Your task to perform on an android device: Open Google Maps Image 0: 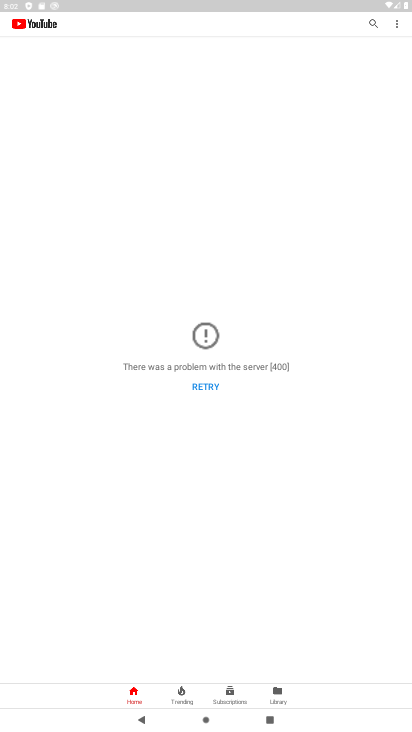
Step 0: press home button
Your task to perform on an android device: Open Google Maps Image 1: 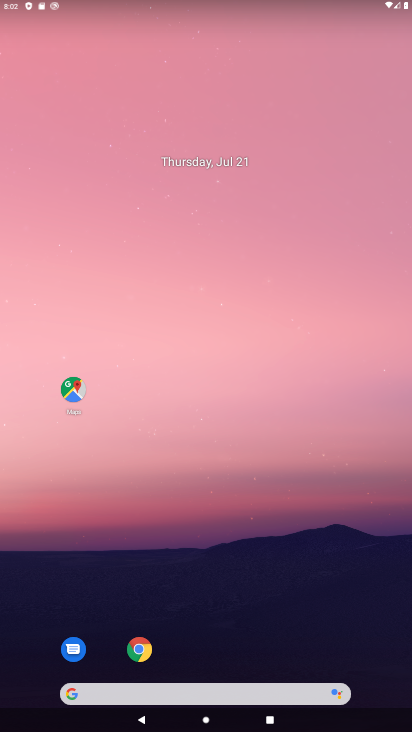
Step 1: drag from (280, 631) to (279, 404)
Your task to perform on an android device: Open Google Maps Image 2: 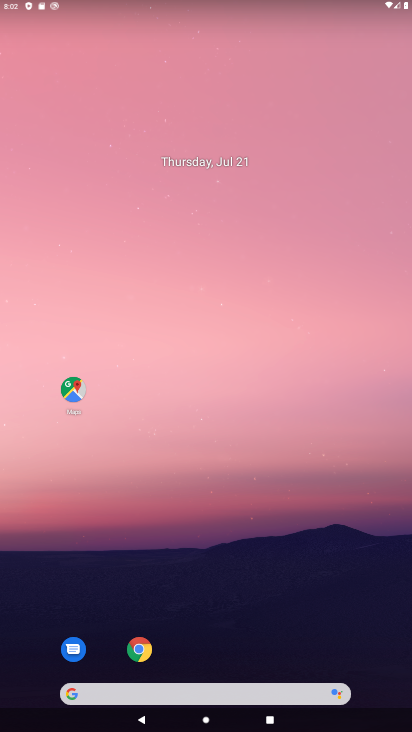
Step 2: click (279, 404)
Your task to perform on an android device: Open Google Maps Image 3: 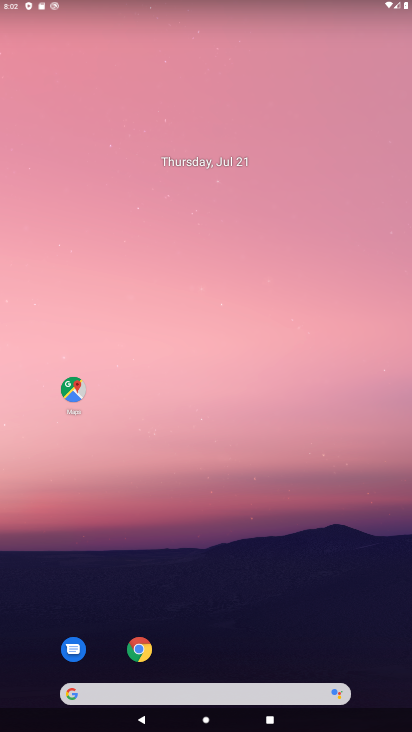
Step 3: drag from (308, 636) to (313, 577)
Your task to perform on an android device: Open Google Maps Image 4: 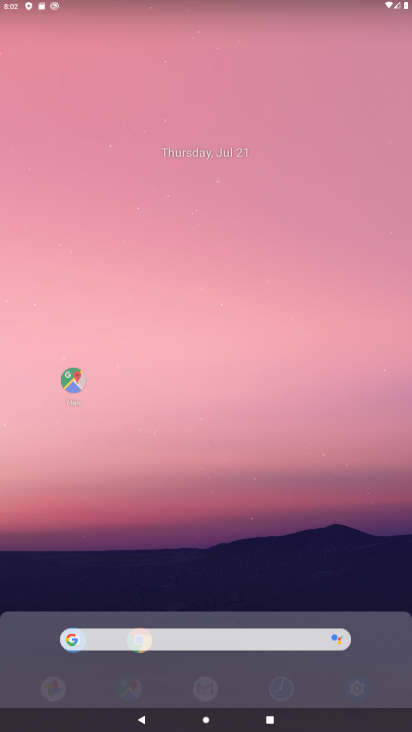
Step 4: drag from (313, 577) to (307, 538)
Your task to perform on an android device: Open Google Maps Image 5: 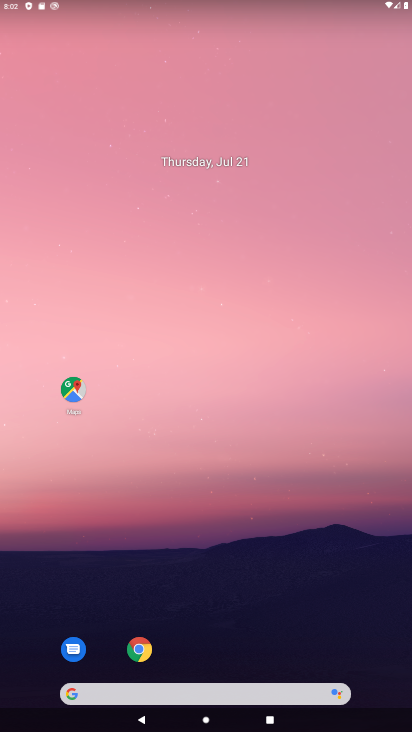
Step 5: drag from (227, 661) to (281, 298)
Your task to perform on an android device: Open Google Maps Image 6: 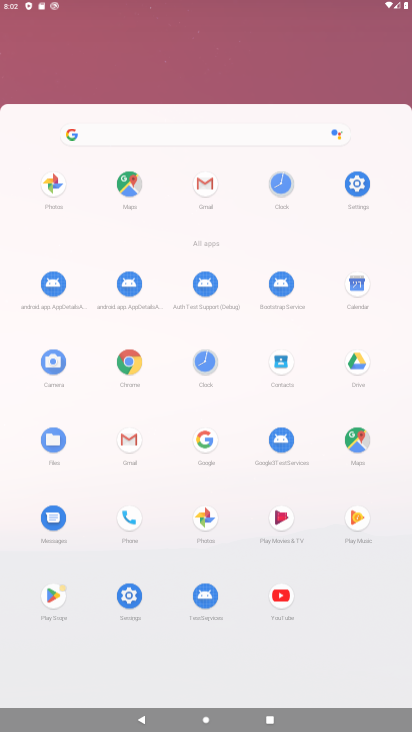
Step 6: click (281, 298)
Your task to perform on an android device: Open Google Maps Image 7: 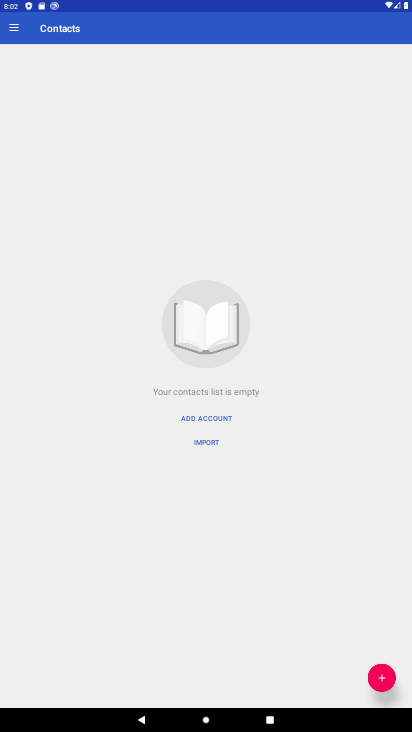
Step 7: press home button
Your task to perform on an android device: Open Google Maps Image 8: 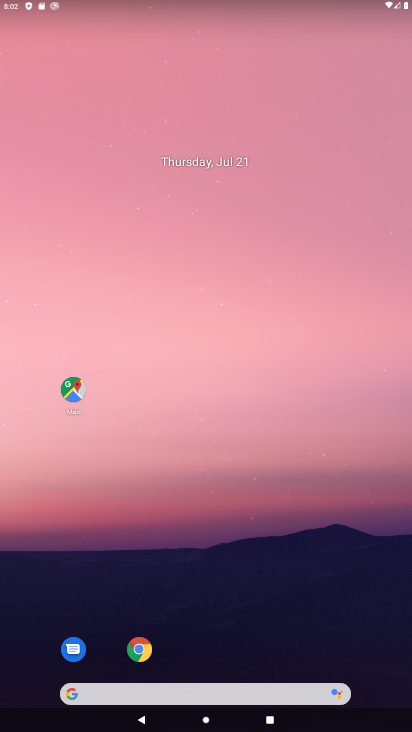
Step 8: click (72, 386)
Your task to perform on an android device: Open Google Maps Image 9: 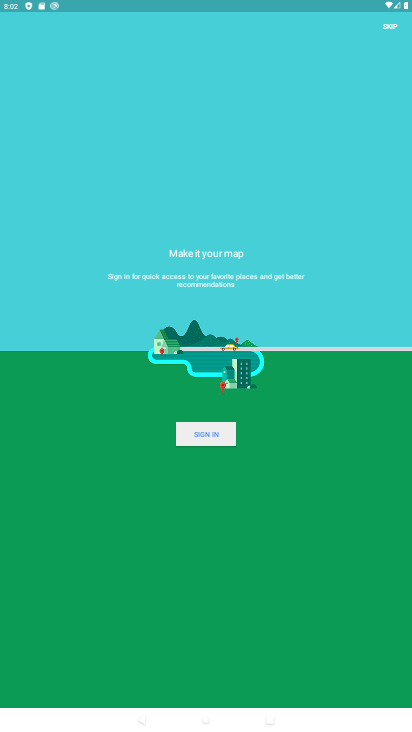
Step 9: task complete